Your task to perform on an android device: check storage Image 0: 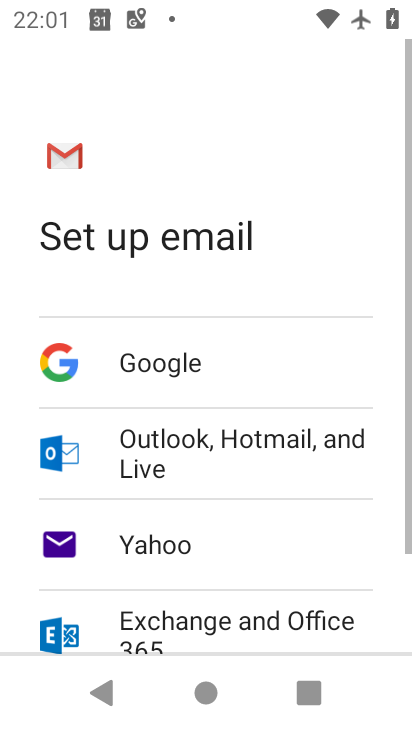
Step 0: press home button
Your task to perform on an android device: check storage Image 1: 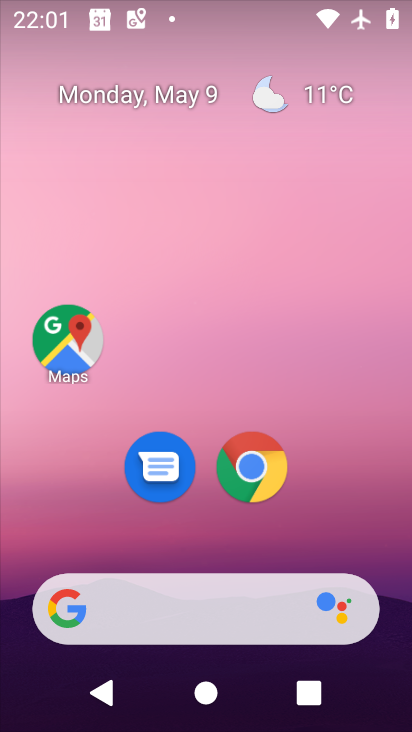
Step 1: drag from (291, 557) to (302, 23)
Your task to perform on an android device: check storage Image 2: 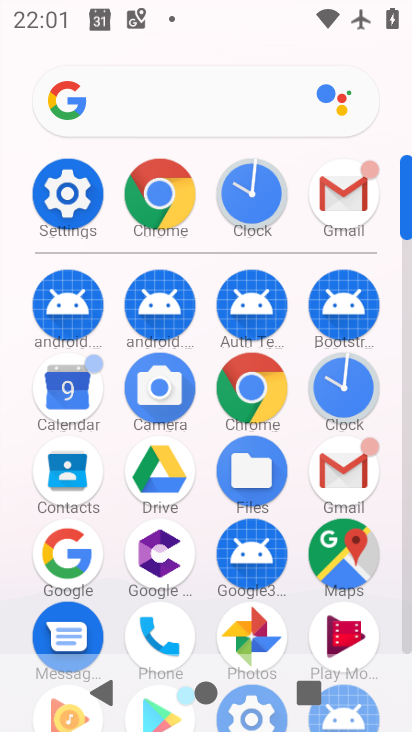
Step 2: click (52, 192)
Your task to perform on an android device: check storage Image 3: 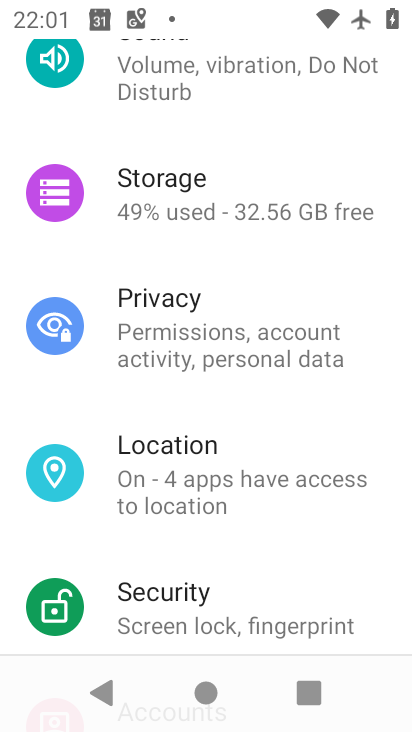
Step 3: drag from (247, 581) to (266, 495)
Your task to perform on an android device: check storage Image 4: 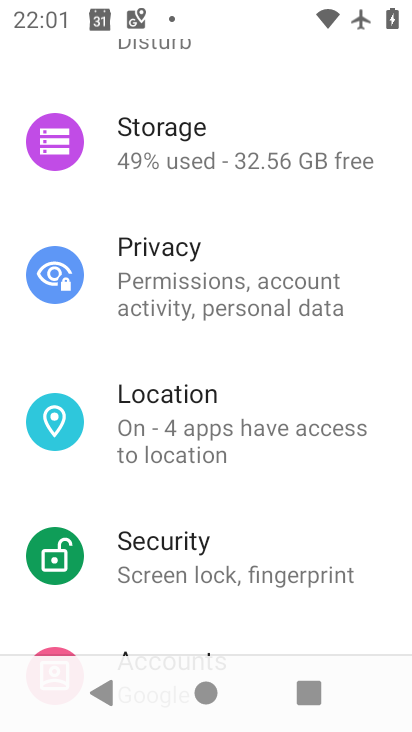
Step 4: click (227, 151)
Your task to perform on an android device: check storage Image 5: 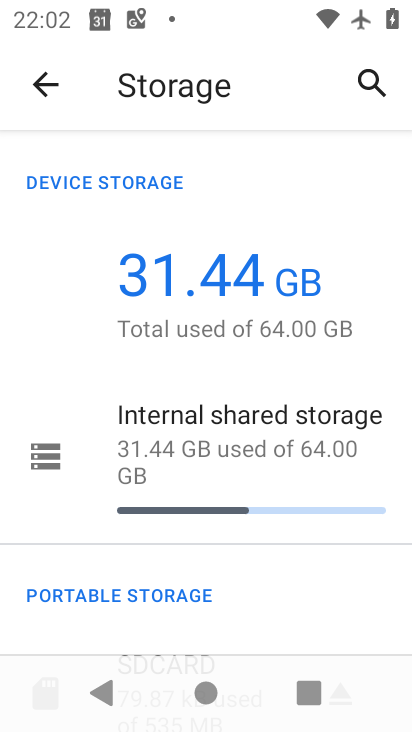
Step 5: task complete